Your task to perform on an android device: change the upload size in google photos Image 0: 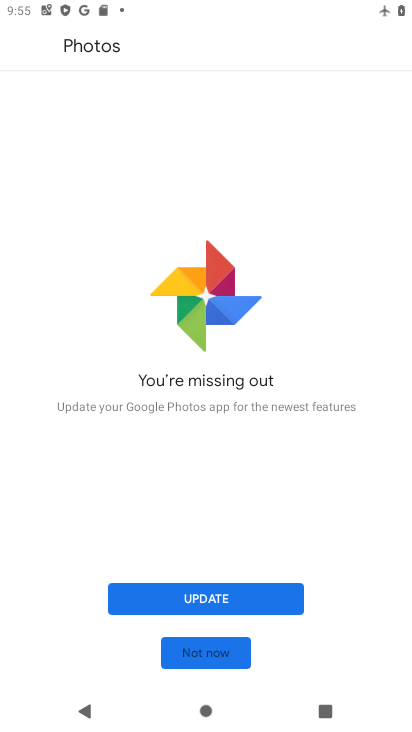
Step 0: press home button
Your task to perform on an android device: change the upload size in google photos Image 1: 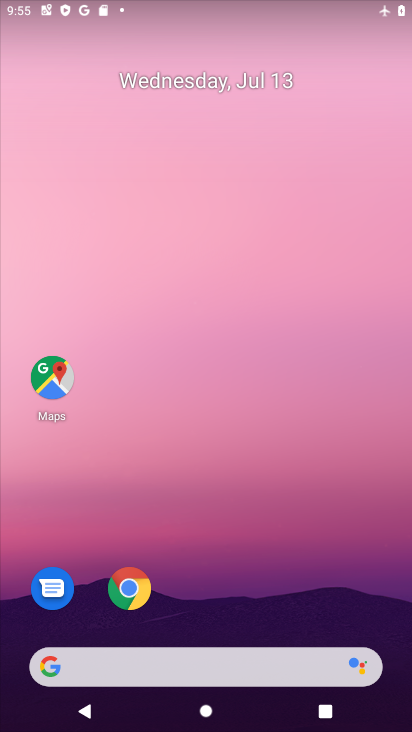
Step 1: drag from (235, 610) to (266, 141)
Your task to perform on an android device: change the upload size in google photos Image 2: 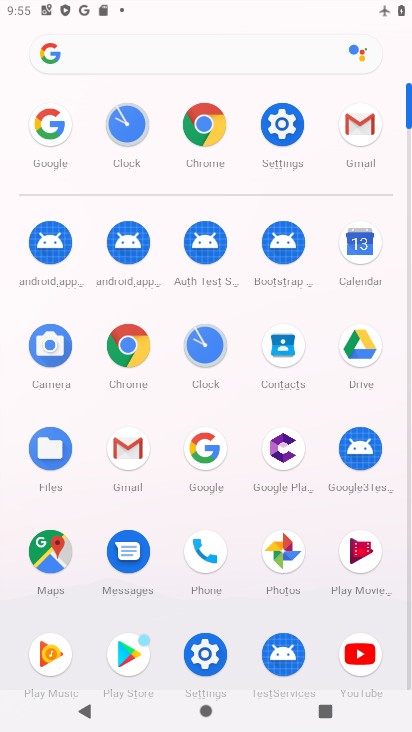
Step 2: click (282, 553)
Your task to perform on an android device: change the upload size in google photos Image 3: 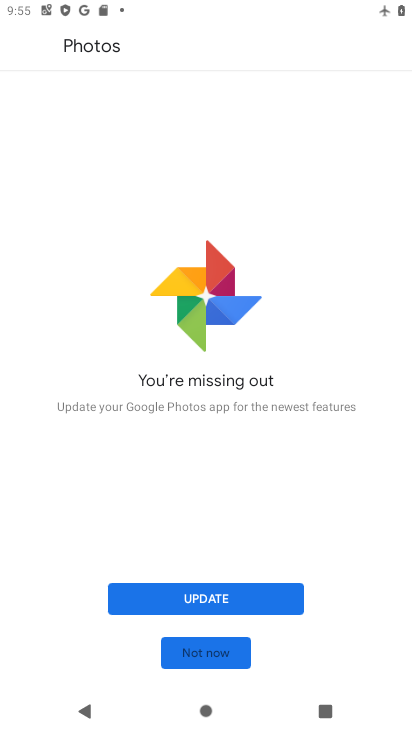
Step 3: click (199, 592)
Your task to perform on an android device: change the upload size in google photos Image 4: 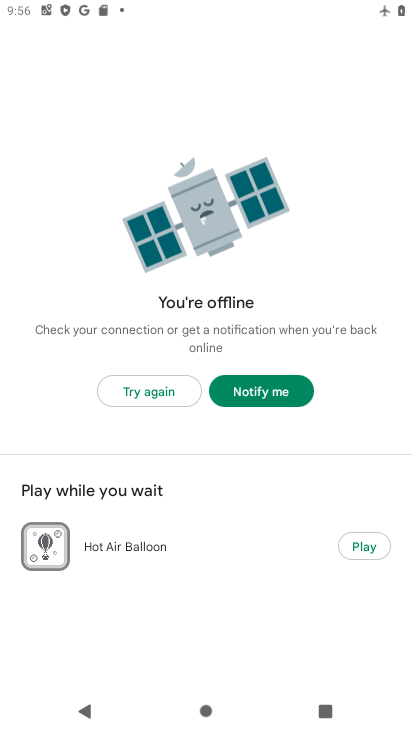
Step 4: task complete